Your task to perform on an android device: Search for pizza restaurants on Maps Image 0: 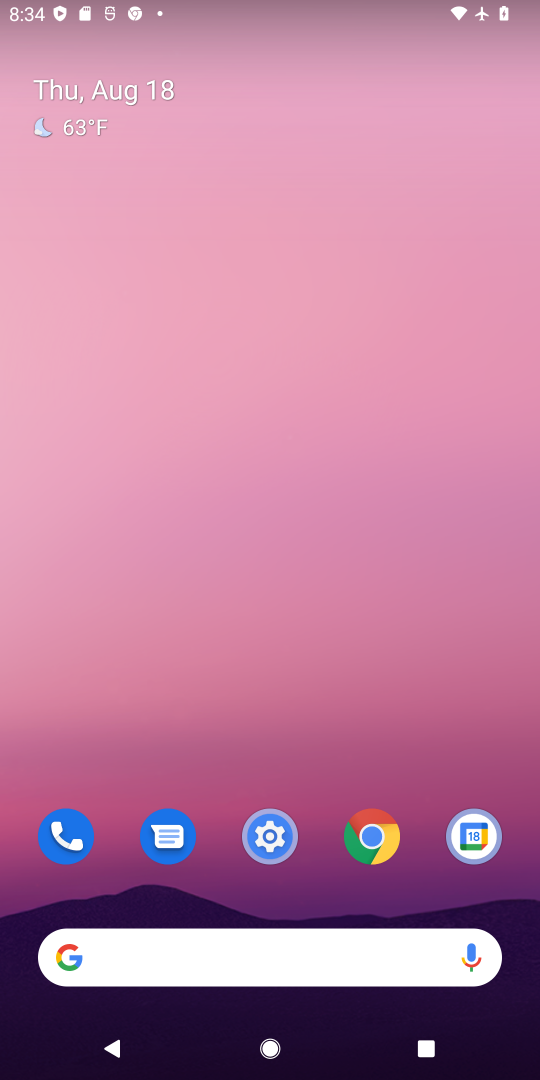
Step 0: drag from (419, 736) to (436, 69)
Your task to perform on an android device: Search for pizza restaurants on Maps Image 1: 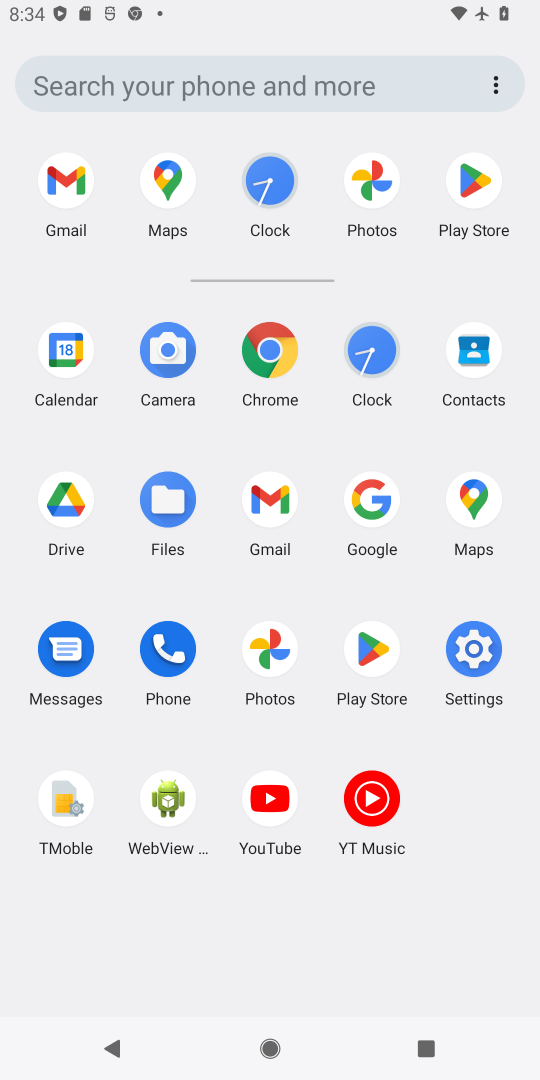
Step 1: click (490, 502)
Your task to perform on an android device: Search for pizza restaurants on Maps Image 2: 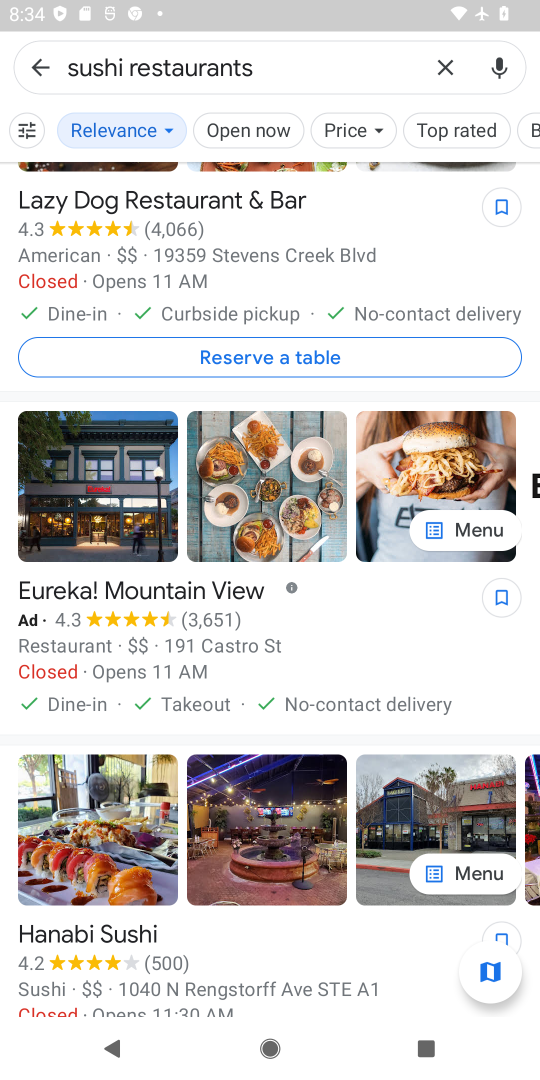
Step 2: click (447, 64)
Your task to perform on an android device: Search for pizza restaurants on Maps Image 3: 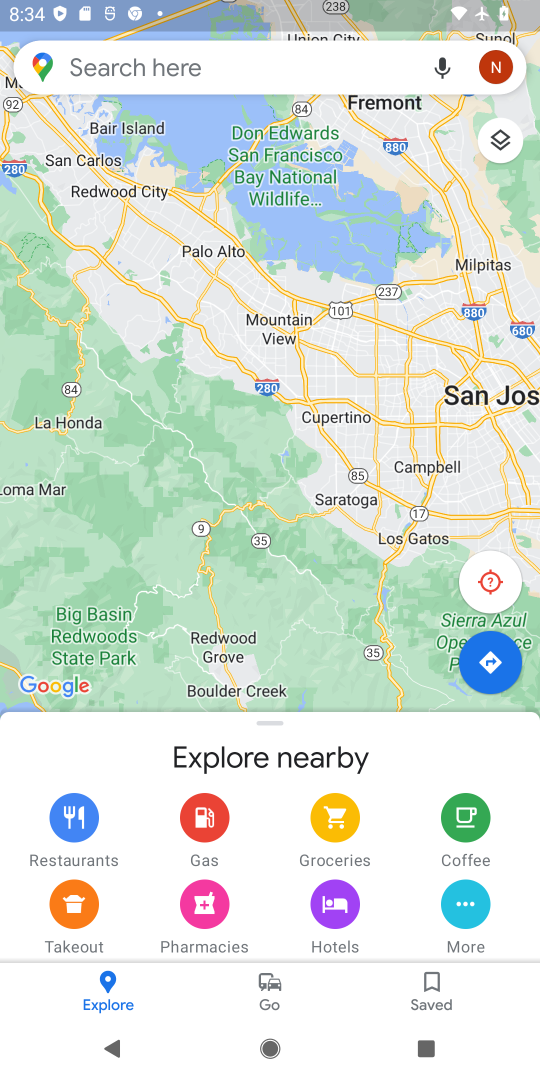
Step 3: click (309, 67)
Your task to perform on an android device: Search for pizza restaurants on Maps Image 4: 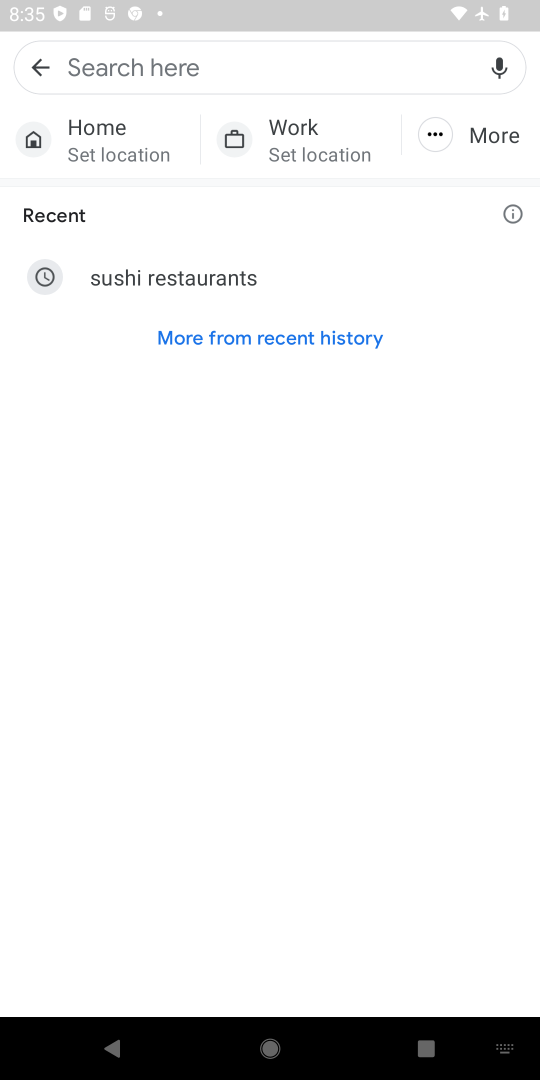
Step 4: type "pizza restaurants"
Your task to perform on an android device: Search for pizza restaurants on Maps Image 5: 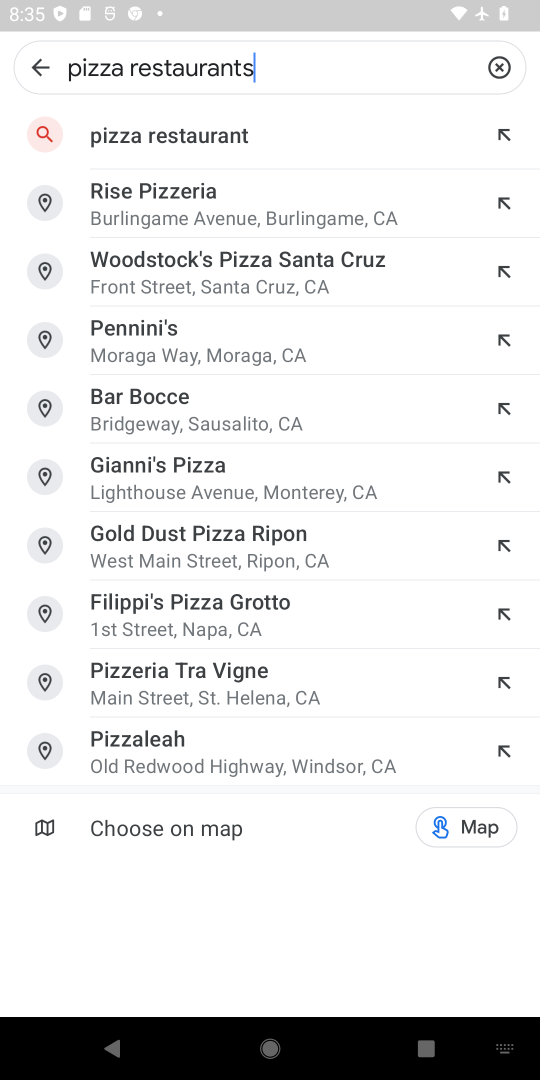
Step 5: press enter
Your task to perform on an android device: Search for pizza restaurants on Maps Image 6: 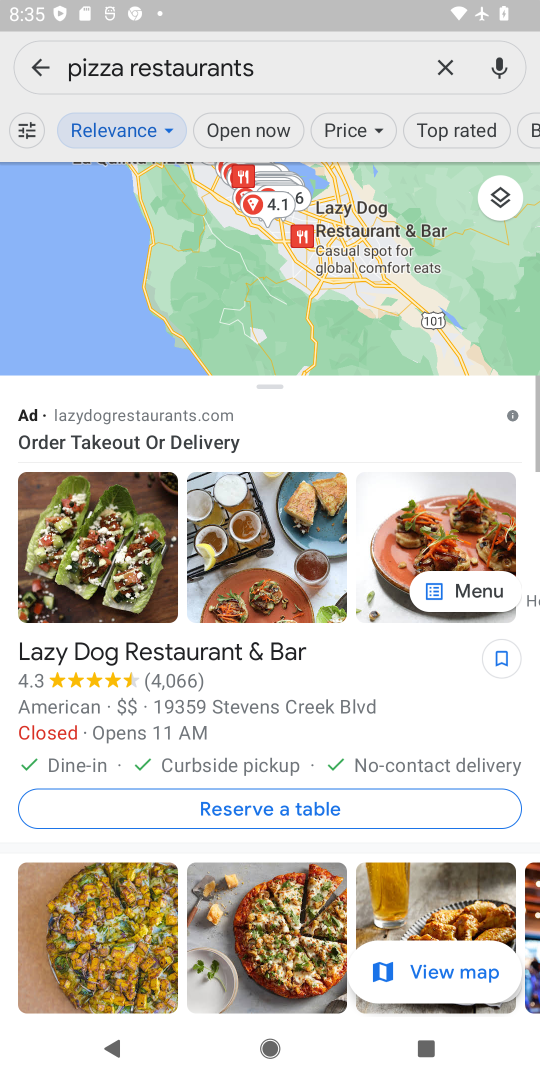
Step 6: task complete